Your task to perform on an android device: toggle notification dots Image 0: 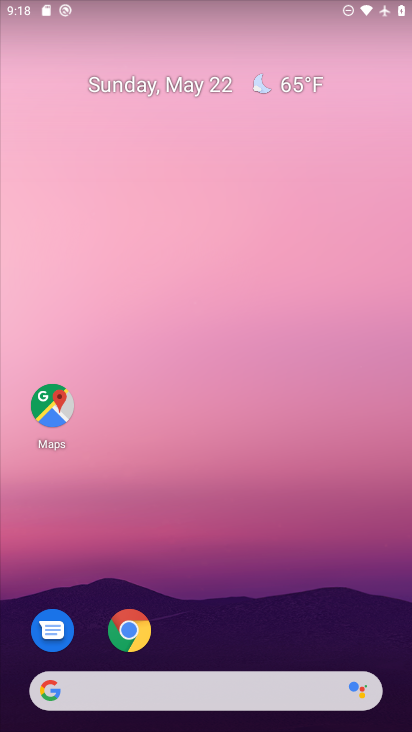
Step 0: press home button
Your task to perform on an android device: toggle notification dots Image 1: 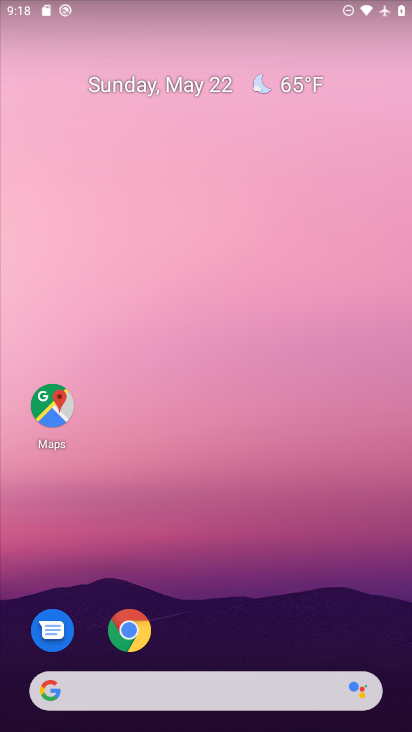
Step 1: drag from (148, 689) to (331, 116)
Your task to perform on an android device: toggle notification dots Image 2: 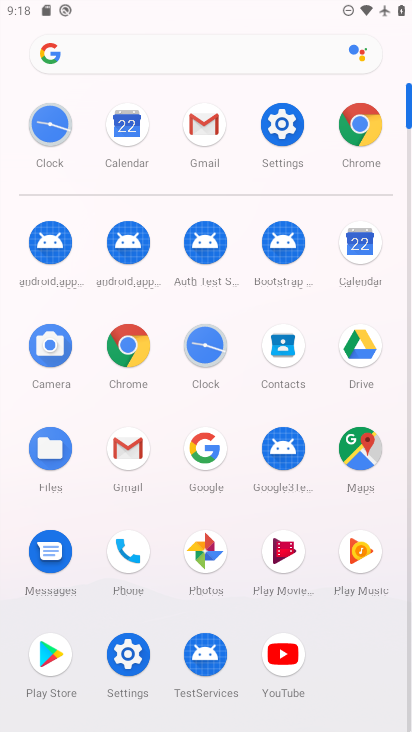
Step 2: click (286, 131)
Your task to perform on an android device: toggle notification dots Image 3: 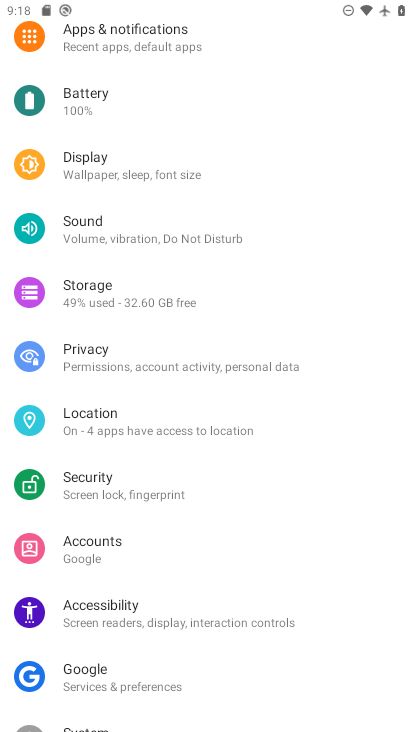
Step 3: click (168, 42)
Your task to perform on an android device: toggle notification dots Image 4: 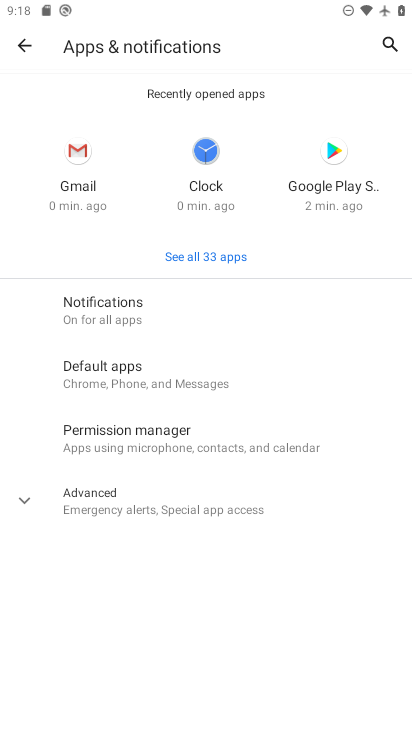
Step 4: click (139, 314)
Your task to perform on an android device: toggle notification dots Image 5: 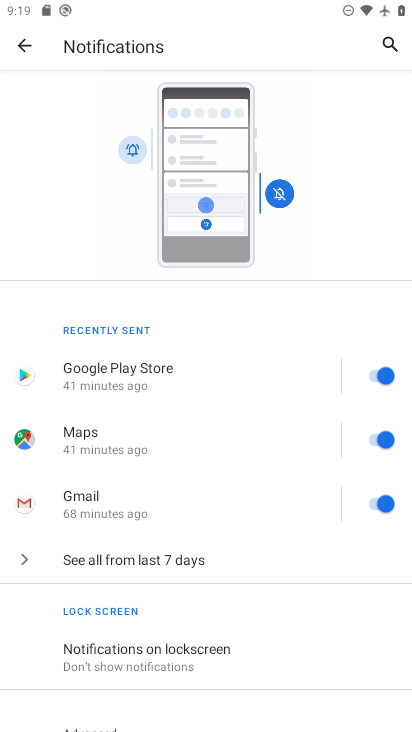
Step 5: drag from (230, 611) to (304, 287)
Your task to perform on an android device: toggle notification dots Image 6: 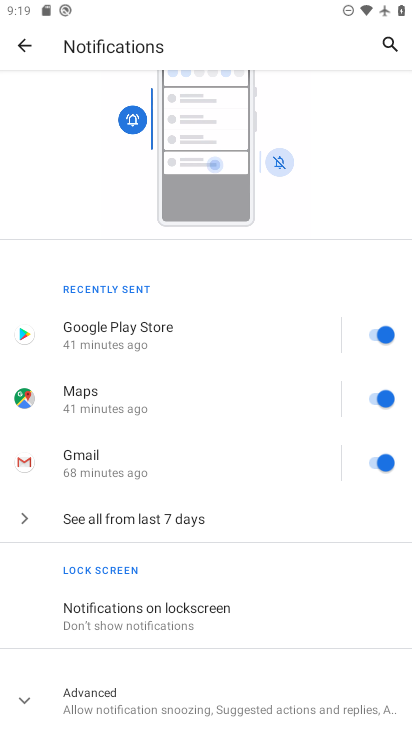
Step 6: click (134, 689)
Your task to perform on an android device: toggle notification dots Image 7: 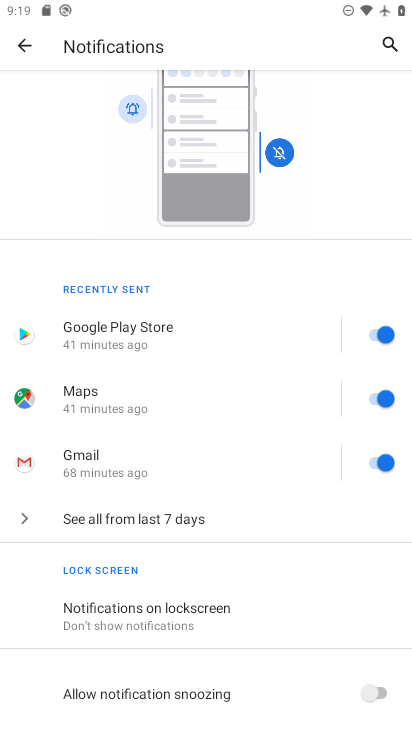
Step 7: drag from (212, 664) to (288, 392)
Your task to perform on an android device: toggle notification dots Image 8: 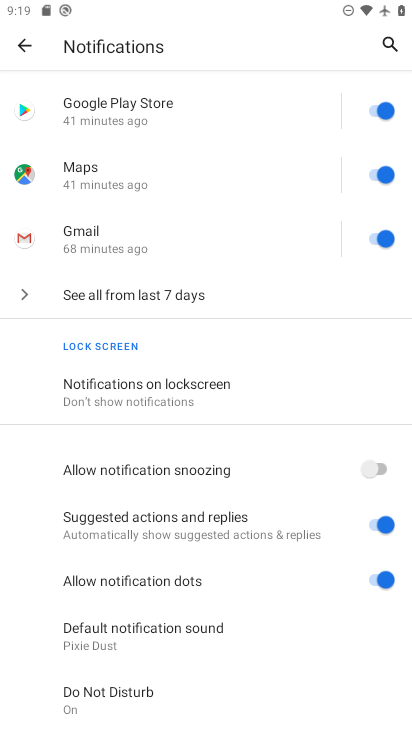
Step 8: click (379, 581)
Your task to perform on an android device: toggle notification dots Image 9: 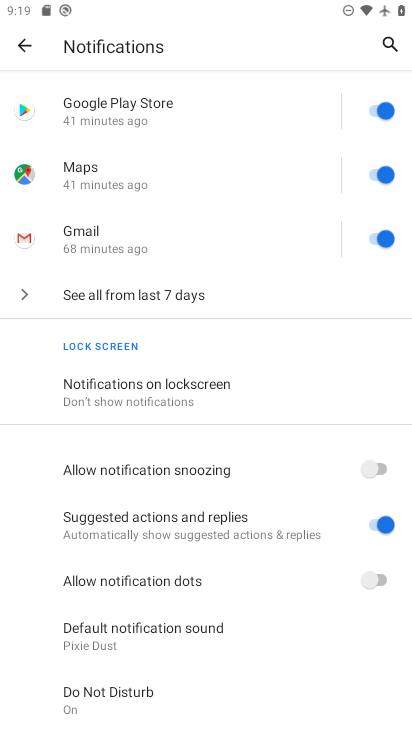
Step 9: task complete